Your task to perform on an android device: Open privacy settings Image 0: 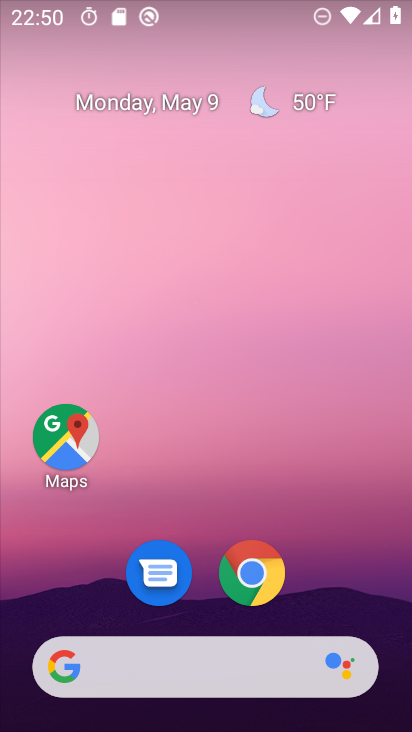
Step 0: drag from (361, 559) to (276, 128)
Your task to perform on an android device: Open privacy settings Image 1: 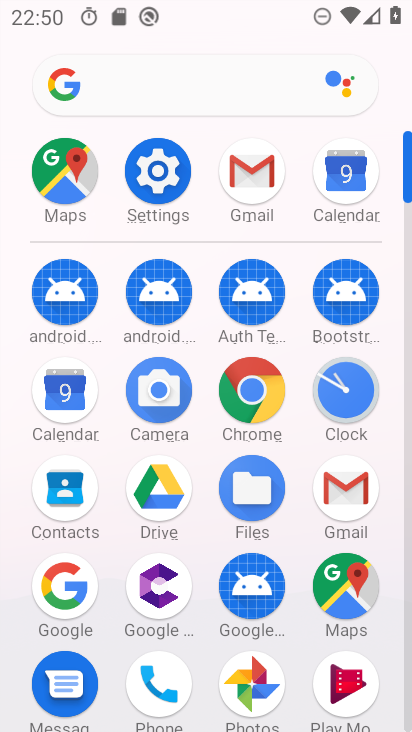
Step 1: click (153, 176)
Your task to perform on an android device: Open privacy settings Image 2: 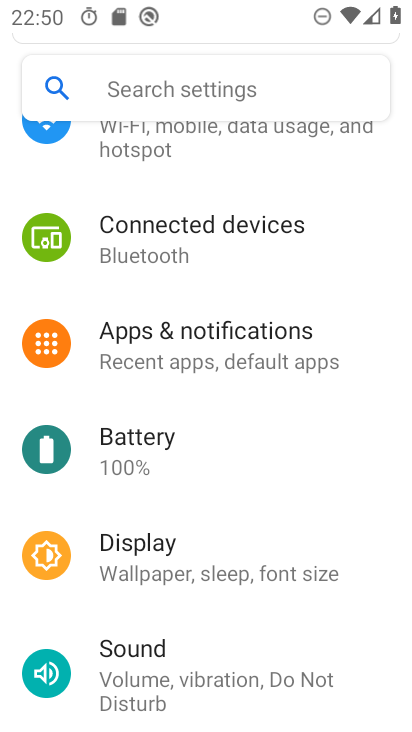
Step 2: drag from (232, 595) to (299, 118)
Your task to perform on an android device: Open privacy settings Image 3: 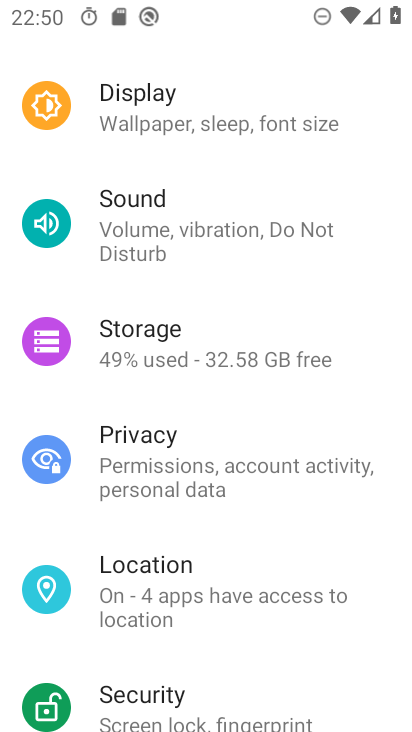
Step 3: drag from (188, 598) to (304, 188)
Your task to perform on an android device: Open privacy settings Image 4: 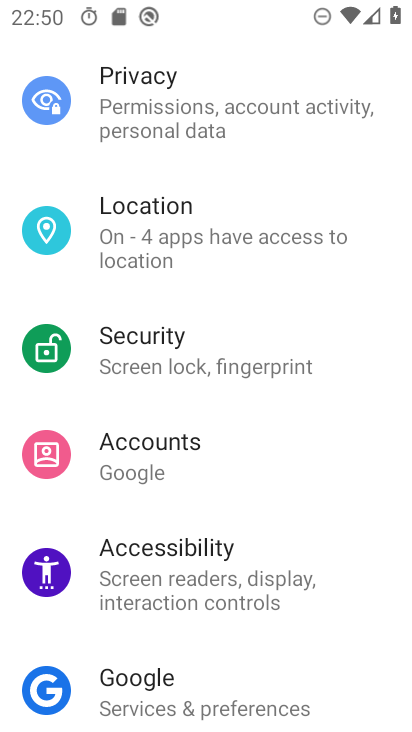
Step 4: drag from (208, 609) to (251, 205)
Your task to perform on an android device: Open privacy settings Image 5: 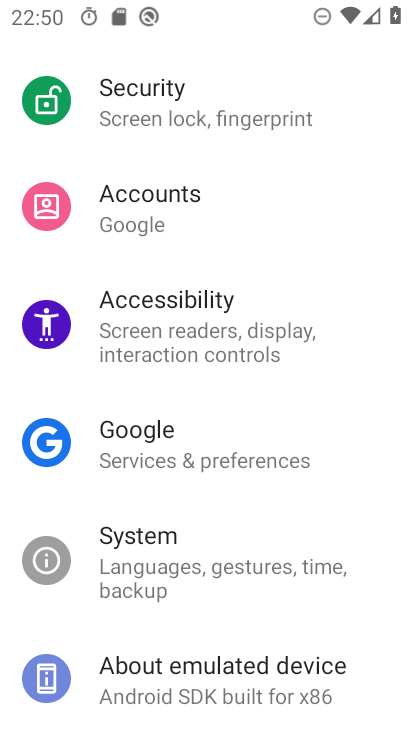
Step 5: drag from (208, 549) to (289, 252)
Your task to perform on an android device: Open privacy settings Image 6: 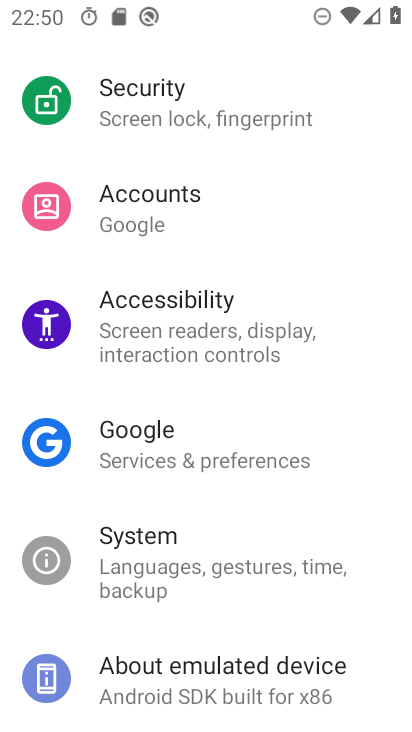
Step 6: drag from (262, 273) to (254, 656)
Your task to perform on an android device: Open privacy settings Image 7: 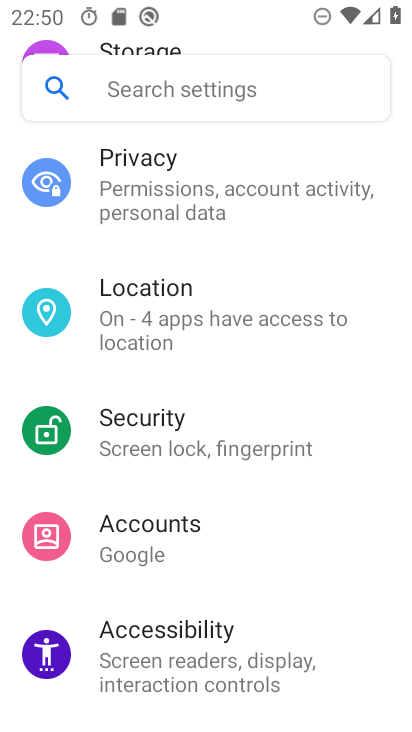
Step 7: click (226, 183)
Your task to perform on an android device: Open privacy settings Image 8: 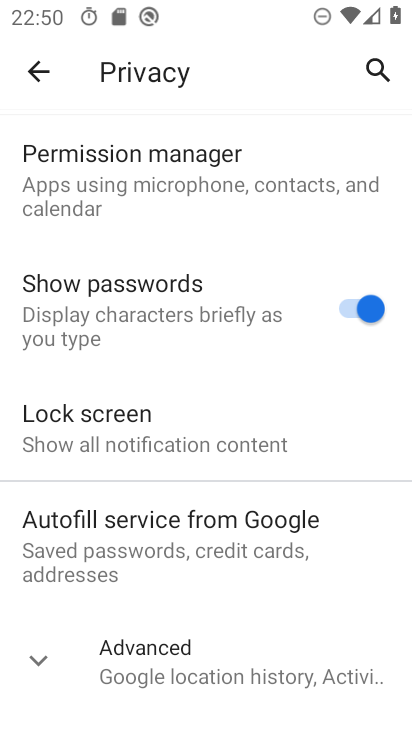
Step 8: task complete